Your task to perform on an android device: What's the weather today? Image 0: 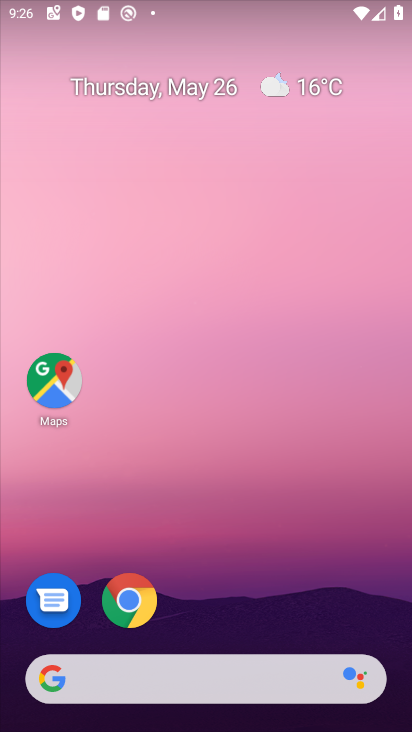
Step 0: click (336, 88)
Your task to perform on an android device: What's the weather today? Image 1: 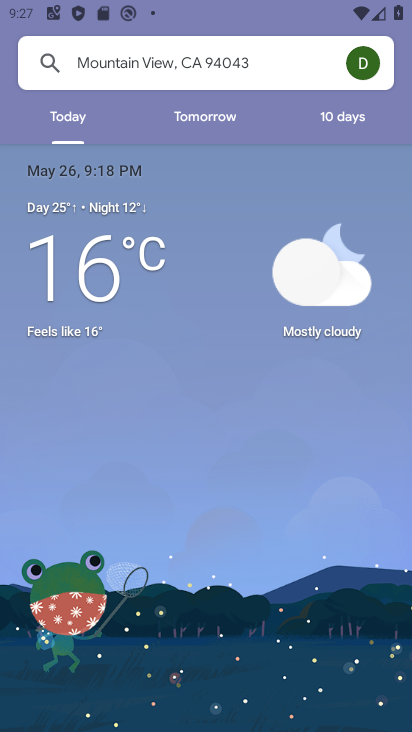
Step 1: task complete